Your task to perform on an android device: change the clock display to show seconds Image 0: 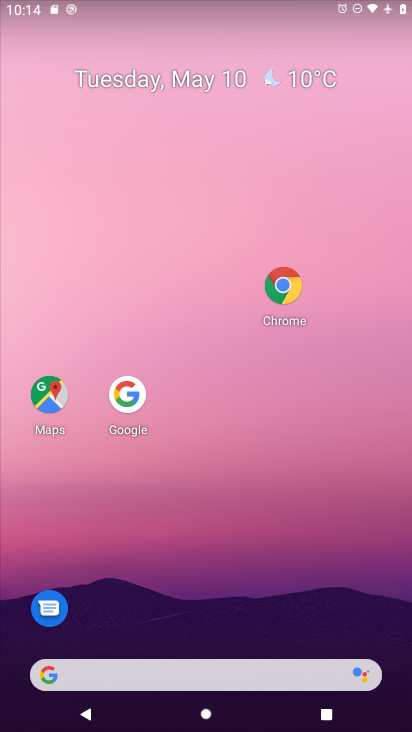
Step 0: drag from (120, 670) to (268, 212)
Your task to perform on an android device: change the clock display to show seconds Image 1: 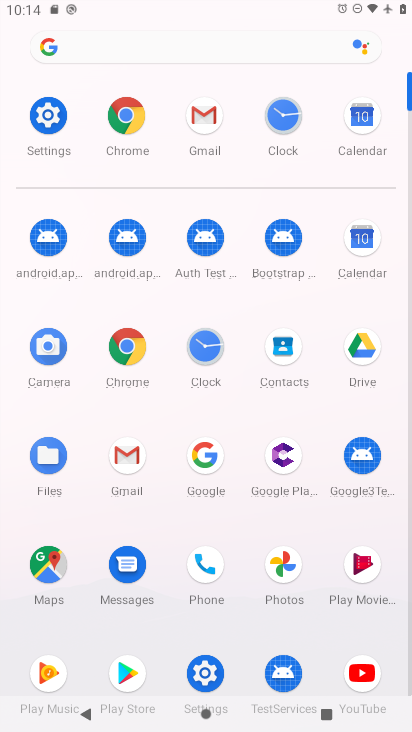
Step 1: click (207, 347)
Your task to perform on an android device: change the clock display to show seconds Image 2: 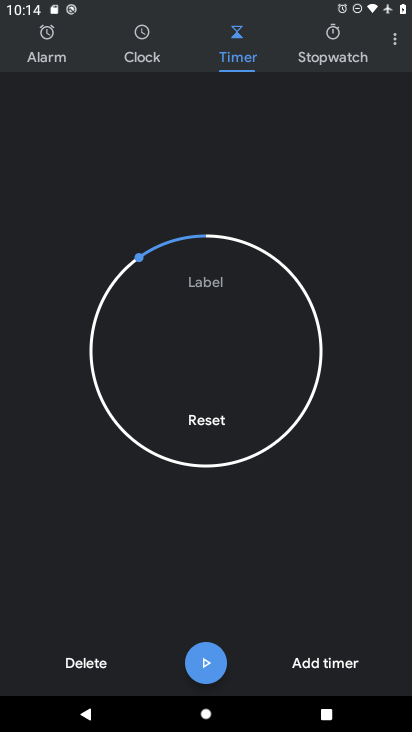
Step 2: click (390, 39)
Your task to perform on an android device: change the clock display to show seconds Image 3: 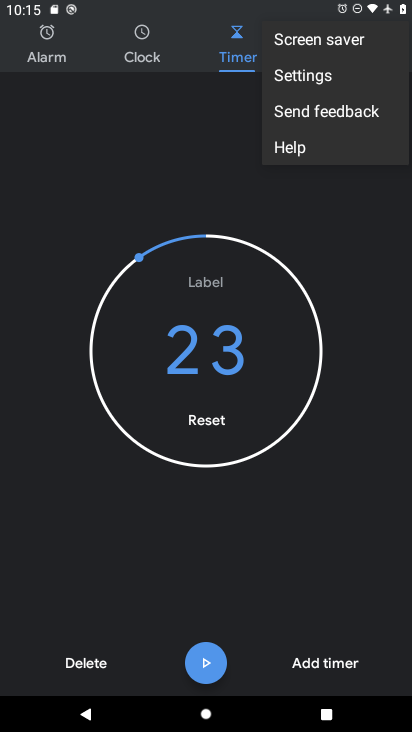
Step 3: click (309, 73)
Your task to perform on an android device: change the clock display to show seconds Image 4: 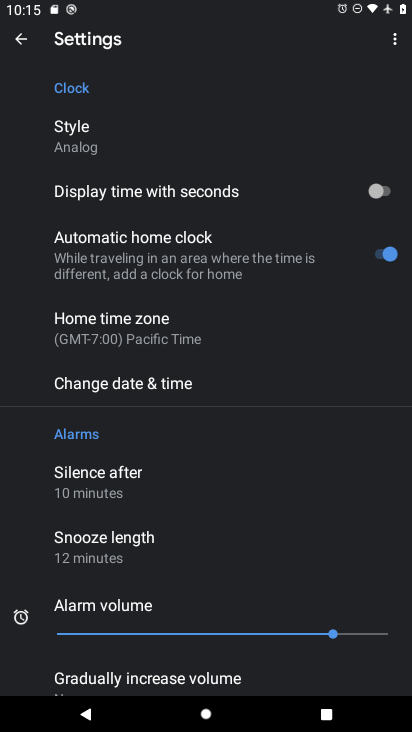
Step 4: click (388, 195)
Your task to perform on an android device: change the clock display to show seconds Image 5: 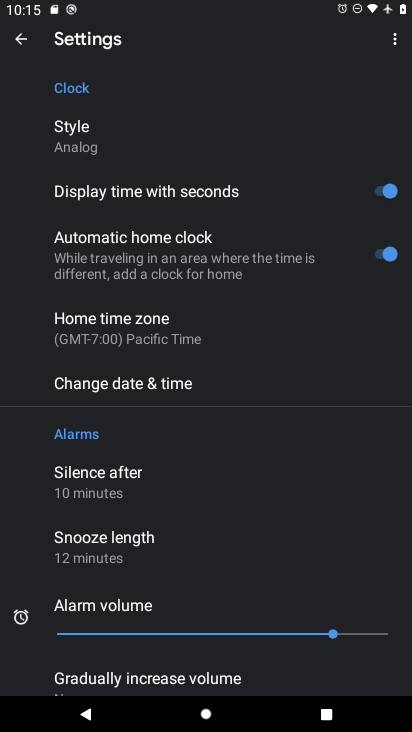
Step 5: task complete